Your task to perform on an android device: change timer sound Image 0: 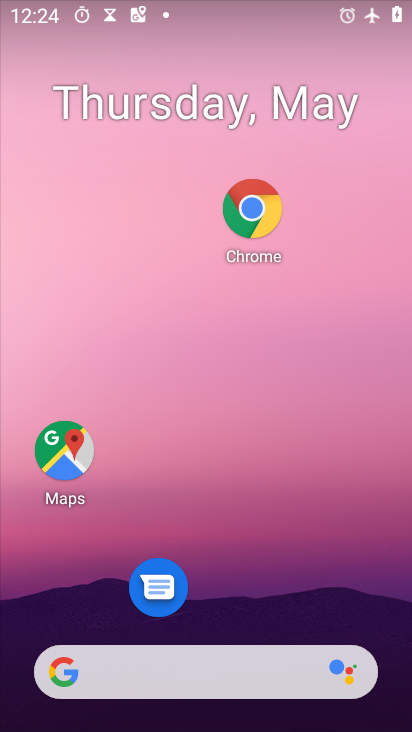
Step 0: drag from (207, 590) to (216, 120)
Your task to perform on an android device: change timer sound Image 1: 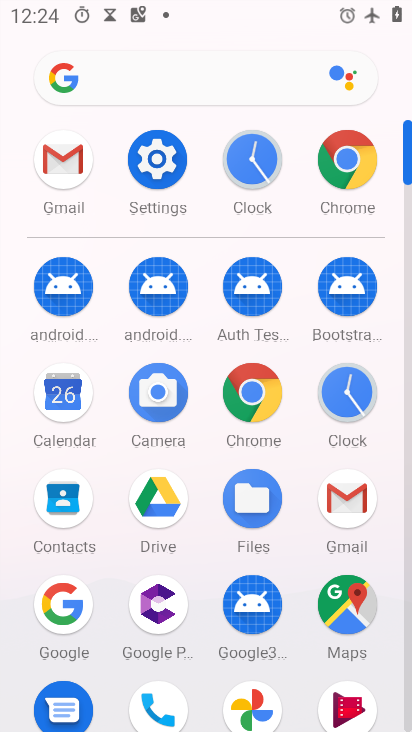
Step 1: click (344, 401)
Your task to perform on an android device: change timer sound Image 2: 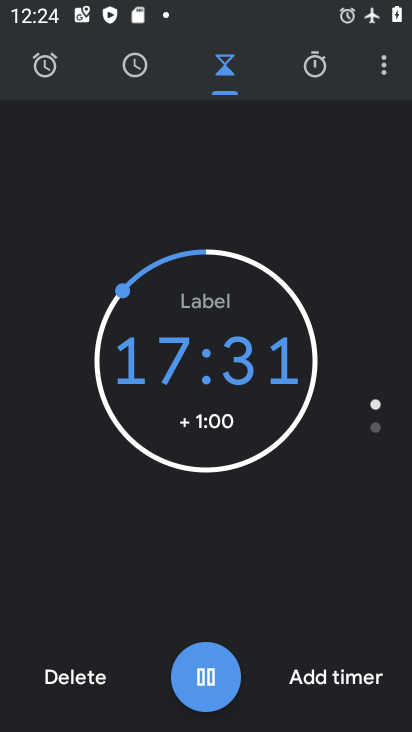
Step 2: click (379, 71)
Your task to perform on an android device: change timer sound Image 3: 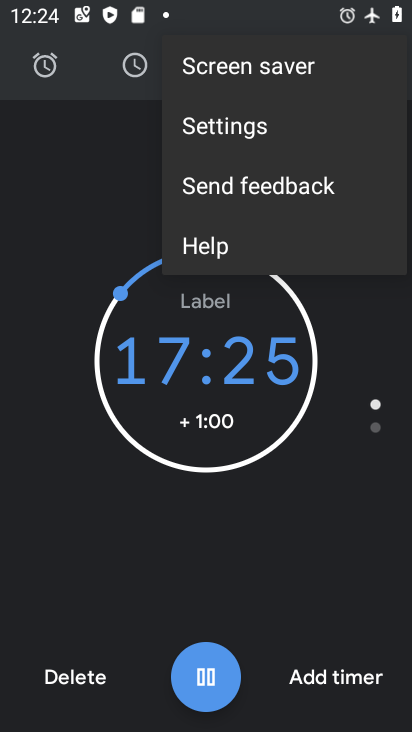
Step 3: click (284, 125)
Your task to perform on an android device: change timer sound Image 4: 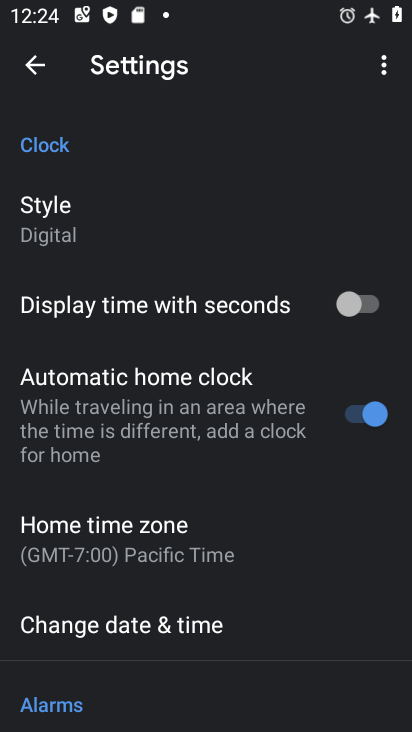
Step 4: drag from (183, 565) to (172, 299)
Your task to perform on an android device: change timer sound Image 5: 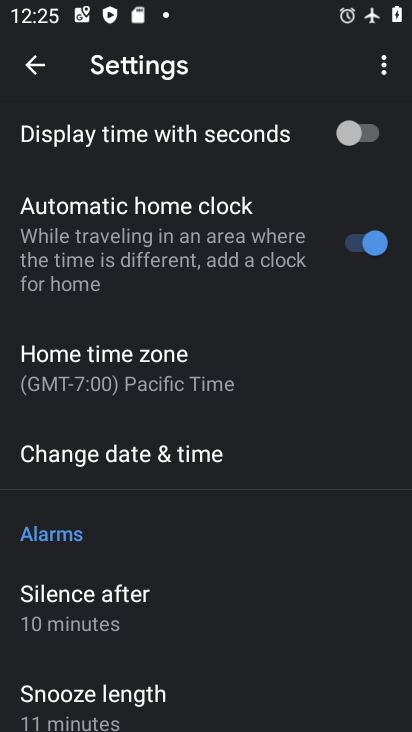
Step 5: drag from (136, 696) to (171, 174)
Your task to perform on an android device: change timer sound Image 6: 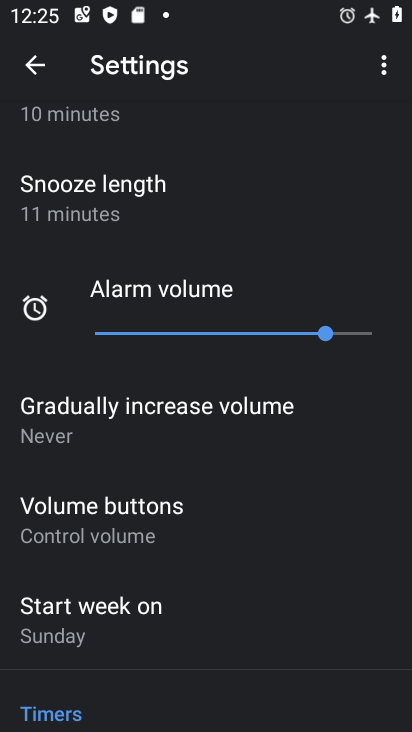
Step 6: drag from (209, 572) to (142, 217)
Your task to perform on an android device: change timer sound Image 7: 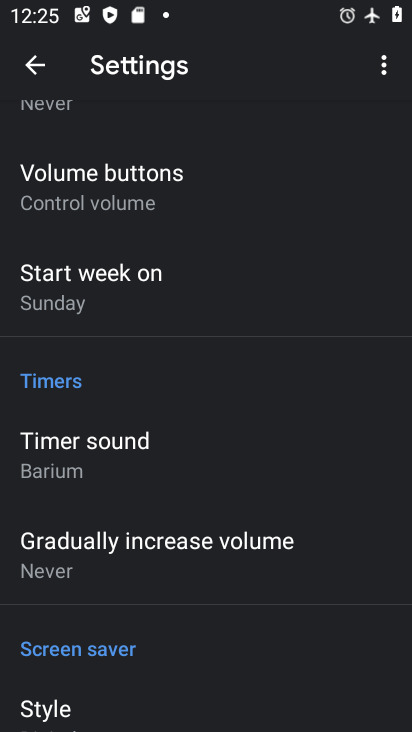
Step 7: click (124, 447)
Your task to perform on an android device: change timer sound Image 8: 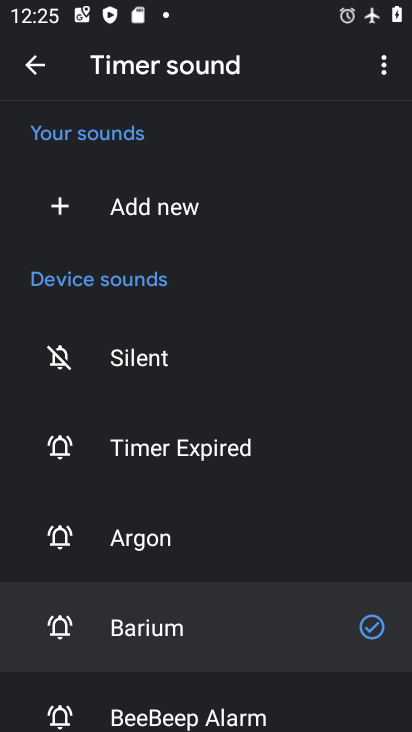
Step 8: click (143, 531)
Your task to perform on an android device: change timer sound Image 9: 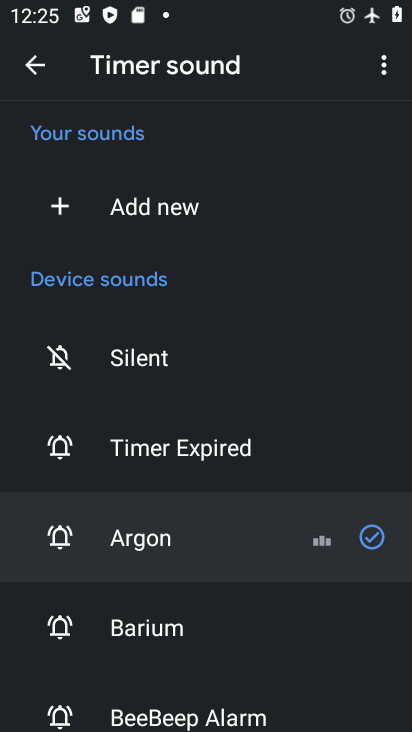
Step 9: task complete